Your task to perform on an android device: Check the news Image 0: 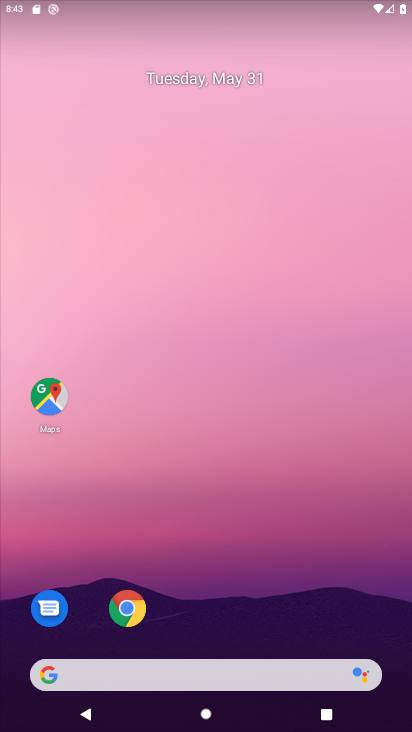
Step 0: drag from (280, 615) to (297, 192)
Your task to perform on an android device: Check the news Image 1: 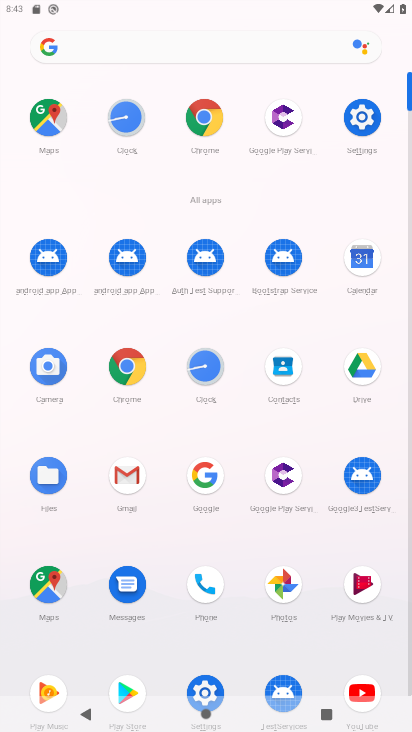
Step 1: click (202, 475)
Your task to perform on an android device: Check the news Image 2: 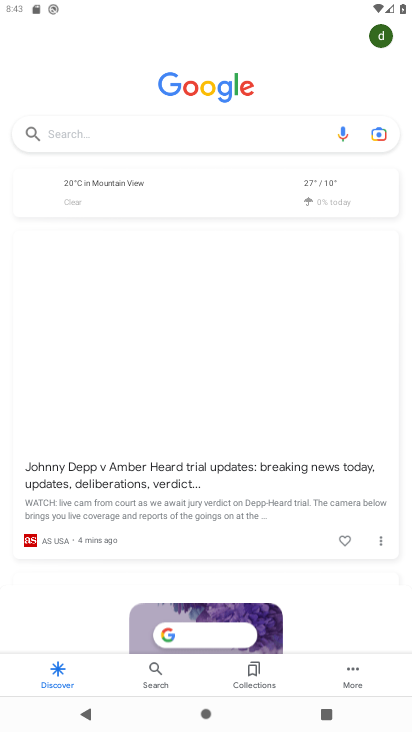
Step 2: click (204, 128)
Your task to perform on an android device: Check the news Image 3: 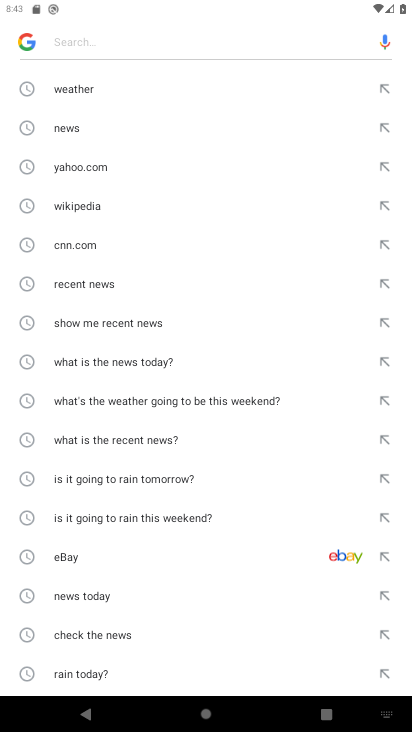
Step 3: type "news"
Your task to perform on an android device: Check the news Image 4: 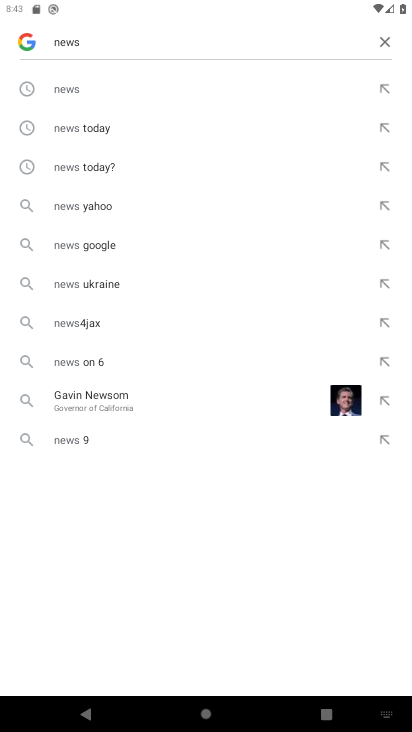
Step 4: click (72, 89)
Your task to perform on an android device: Check the news Image 5: 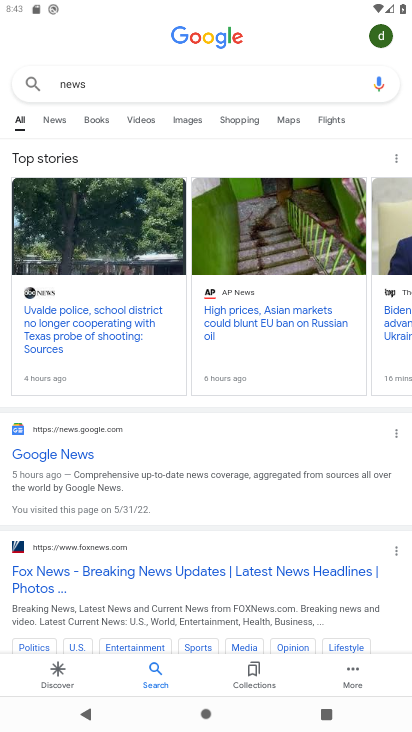
Step 5: task complete